Your task to perform on an android device: Open the Play Movies app and select the watchlist tab. Image 0: 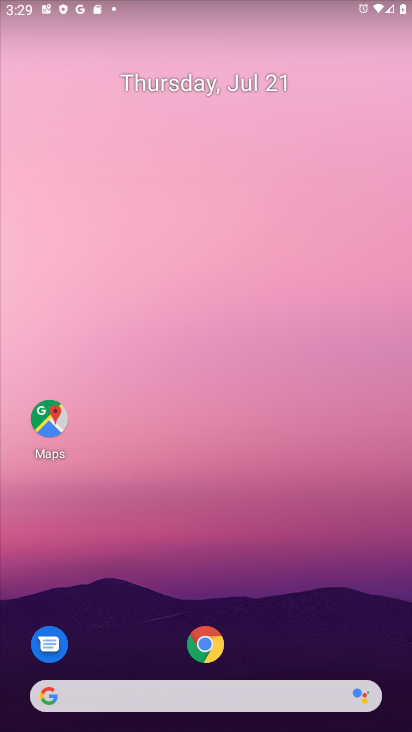
Step 0: press home button
Your task to perform on an android device: Open the Play Movies app and select the watchlist tab. Image 1: 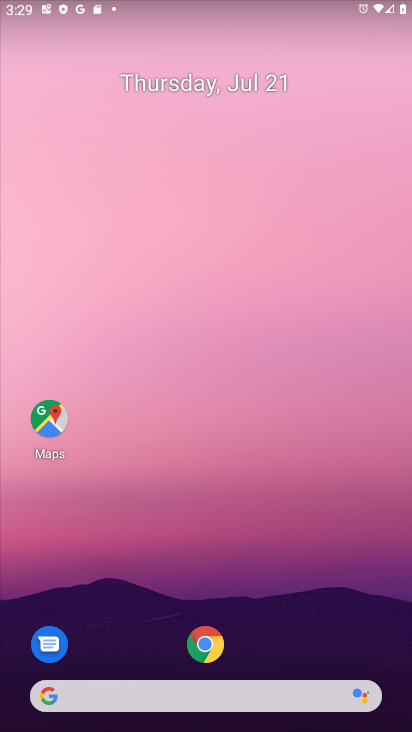
Step 1: drag from (368, 167) to (392, 27)
Your task to perform on an android device: Open the Play Movies app and select the watchlist tab. Image 2: 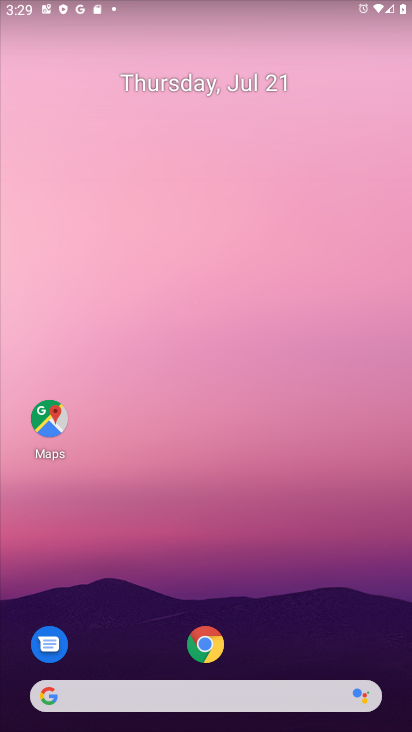
Step 2: drag from (262, 581) to (344, 10)
Your task to perform on an android device: Open the Play Movies app and select the watchlist tab. Image 3: 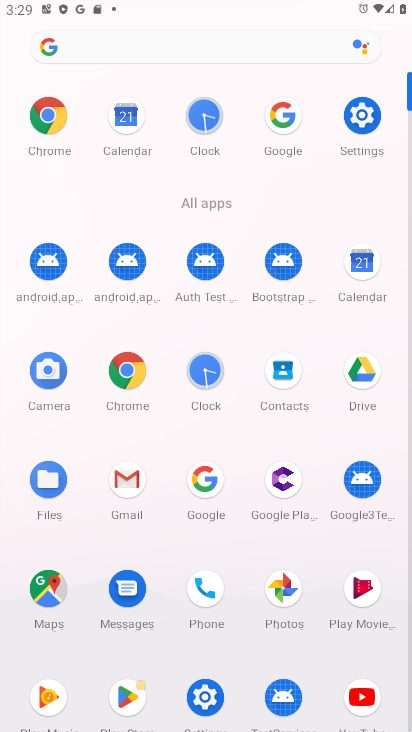
Step 3: click (354, 599)
Your task to perform on an android device: Open the Play Movies app and select the watchlist tab. Image 4: 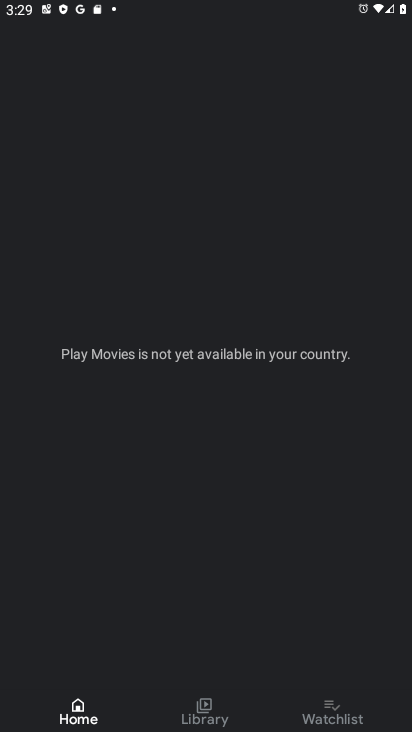
Step 4: click (317, 715)
Your task to perform on an android device: Open the Play Movies app and select the watchlist tab. Image 5: 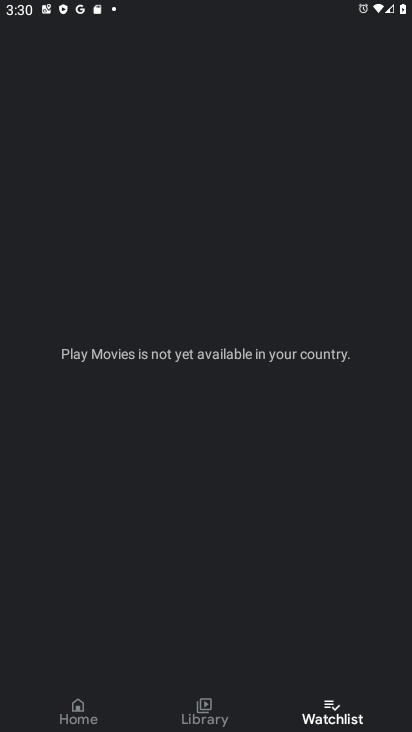
Step 5: task complete